Your task to perform on an android device: Open the Play Movies app and select the watchlist tab. Image 0: 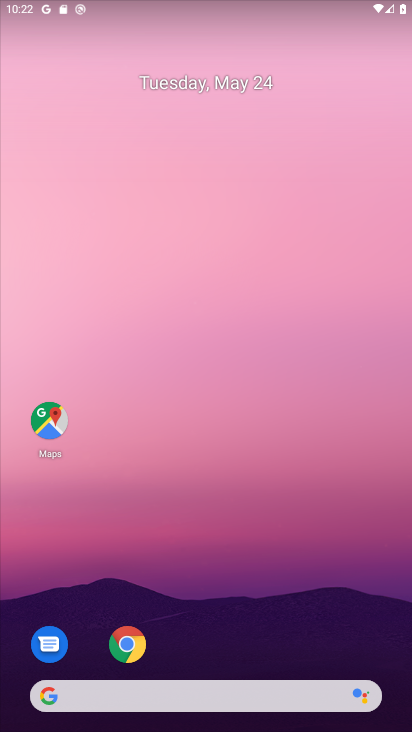
Step 0: drag from (216, 571) to (151, 75)
Your task to perform on an android device: Open the Play Movies app and select the watchlist tab. Image 1: 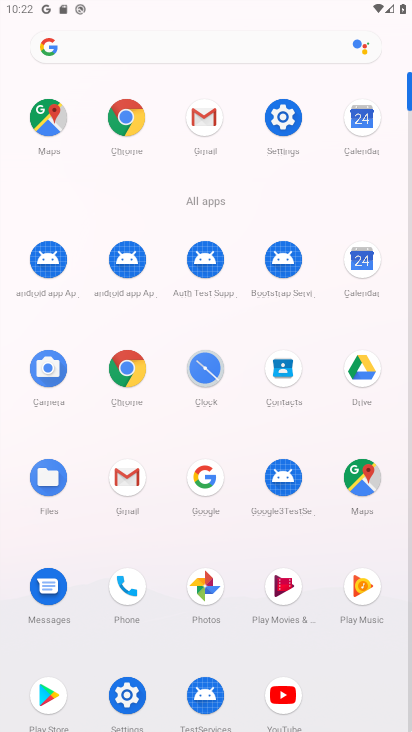
Step 1: click (280, 585)
Your task to perform on an android device: Open the Play Movies app and select the watchlist tab. Image 2: 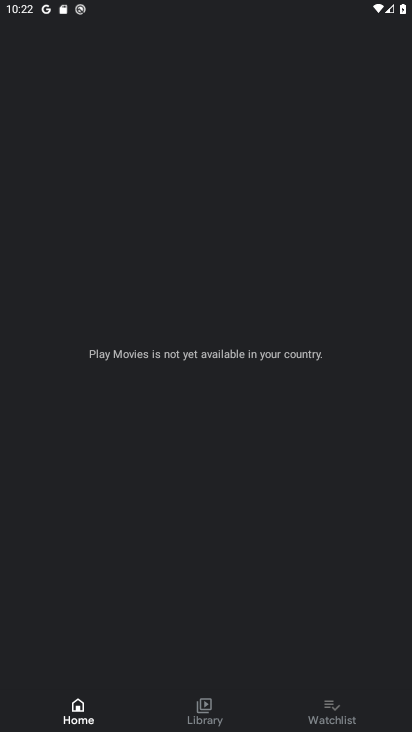
Step 2: click (330, 705)
Your task to perform on an android device: Open the Play Movies app and select the watchlist tab. Image 3: 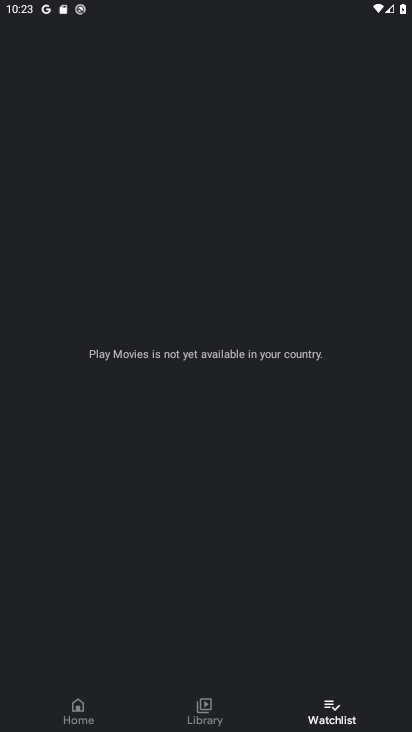
Step 3: task complete